Your task to perform on an android device: Open Google Maps Image 0: 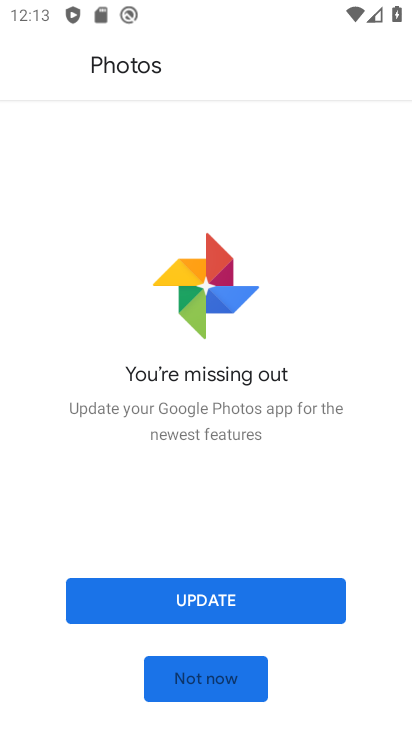
Step 0: press home button
Your task to perform on an android device: Open Google Maps Image 1: 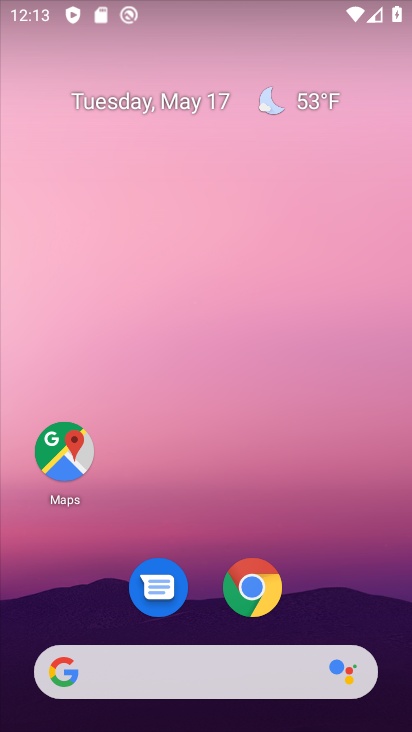
Step 1: drag from (213, 616) to (223, 83)
Your task to perform on an android device: Open Google Maps Image 2: 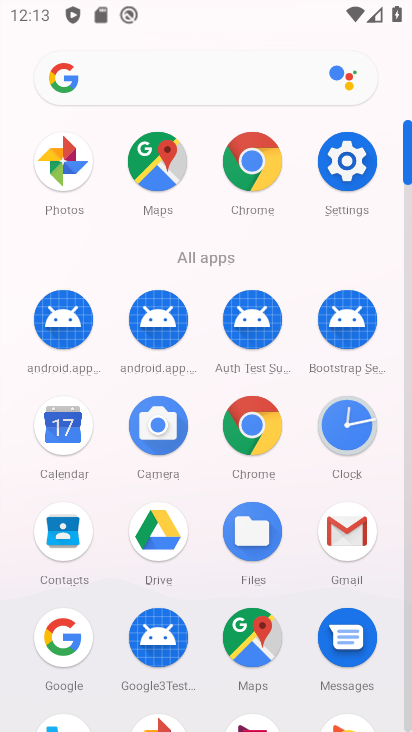
Step 2: click (244, 633)
Your task to perform on an android device: Open Google Maps Image 3: 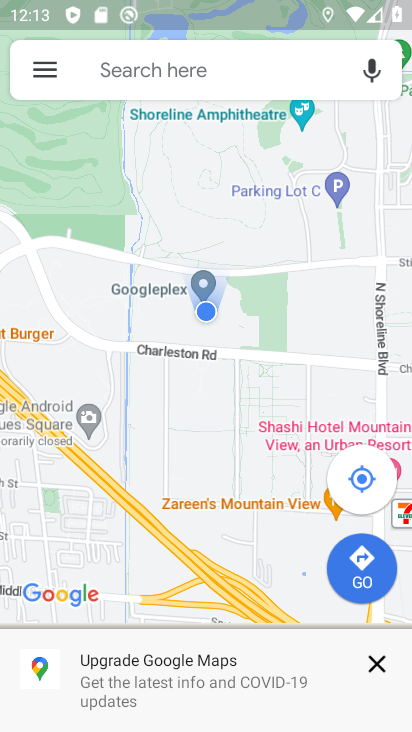
Step 3: click (380, 653)
Your task to perform on an android device: Open Google Maps Image 4: 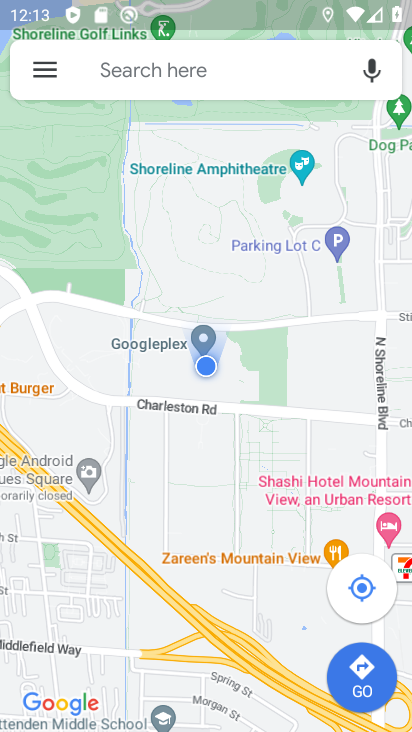
Step 4: task complete